Your task to perform on an android device: Go to Google maps Image 0: 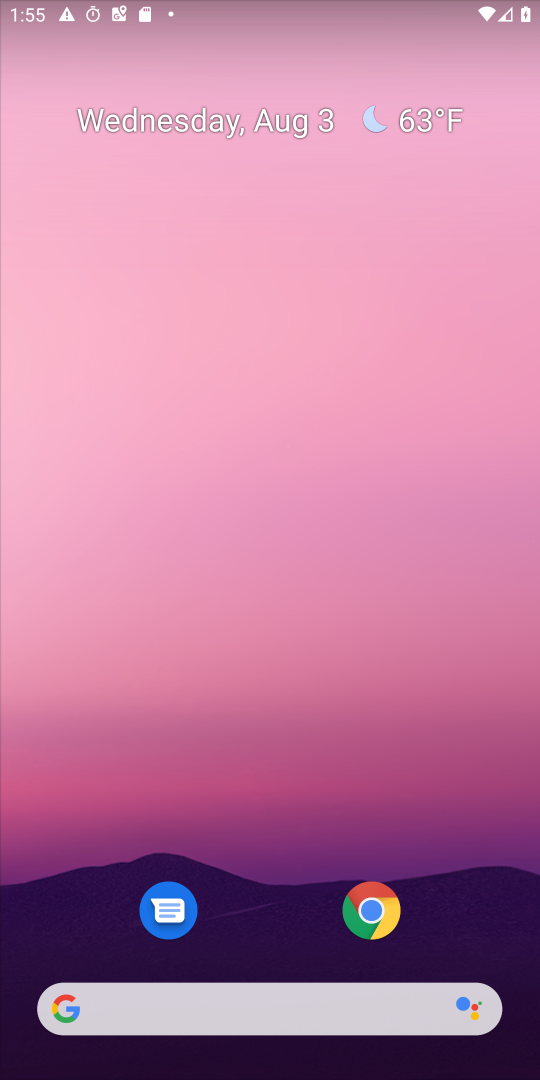
Step 0: drag from (354, 611) to (358, 16)
Your task to perform on an android device: Go to Google maps Image 1: 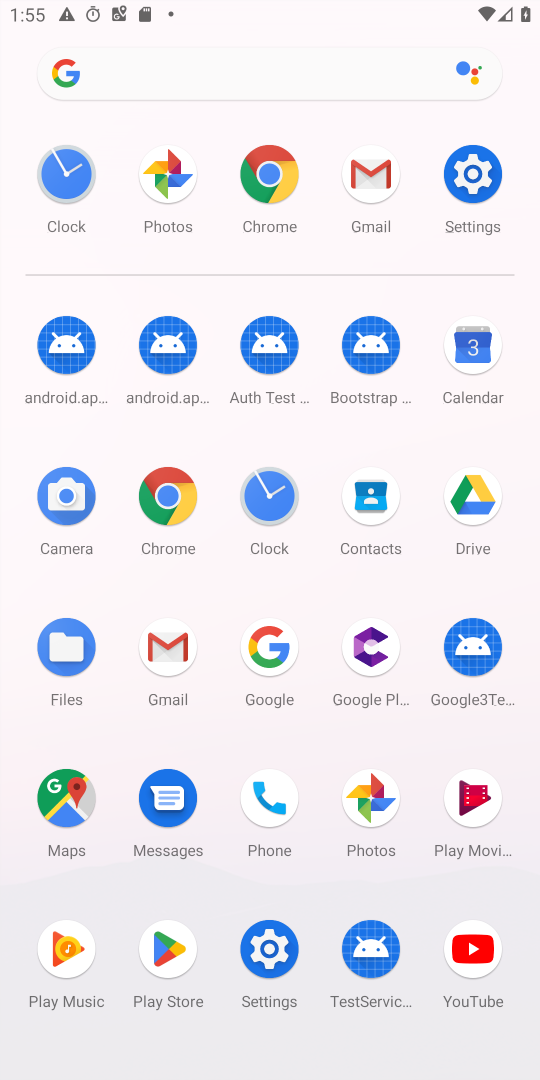
Step 1: click (55, 798)
Your task to perform on an android device: Go to Google maps Image 2: 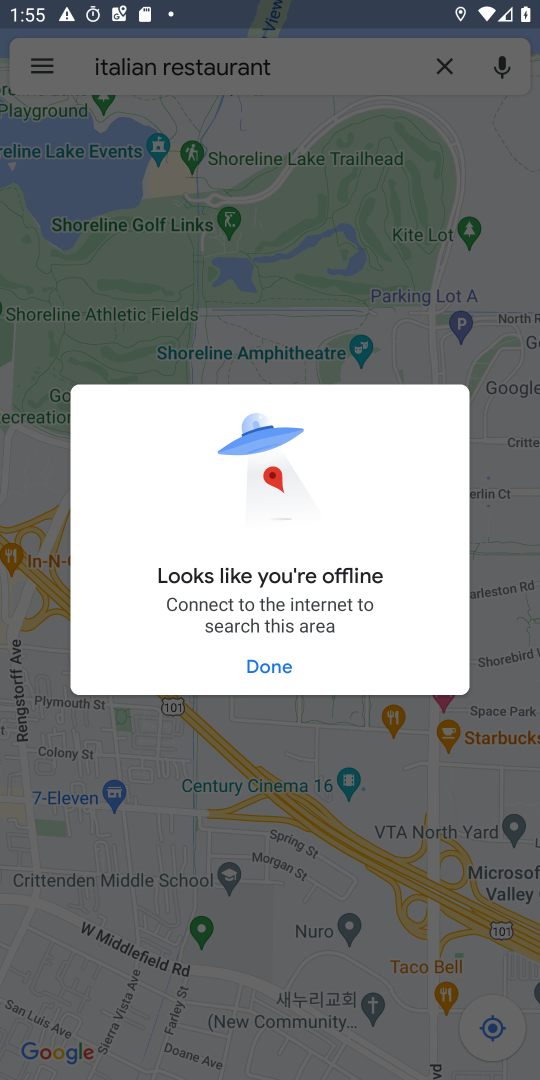
Step 2: click (473, 742)
Your task to perform on an android device: Go to Google maps Image 3: 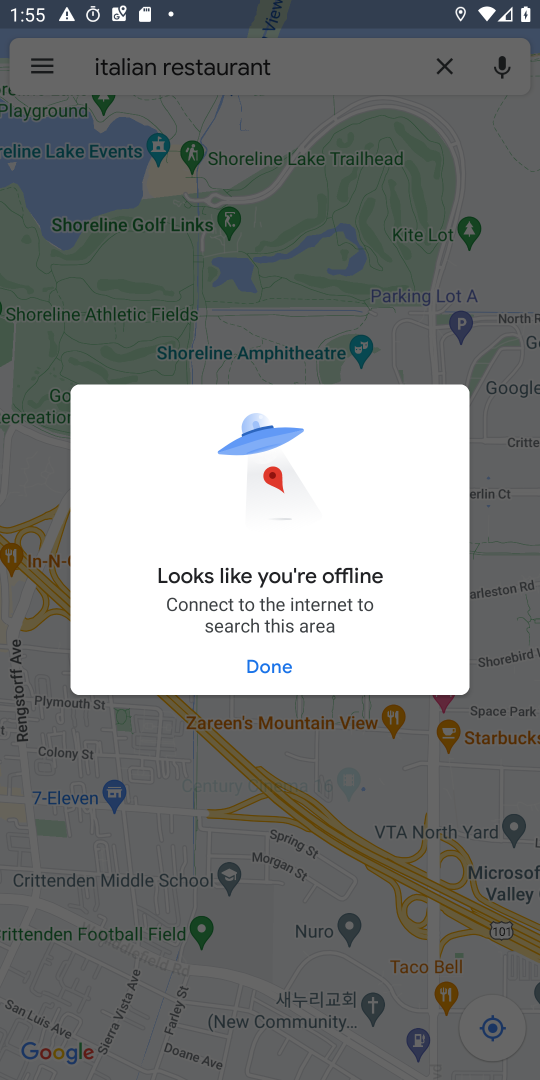
Step 3: click (490, 735)
Your task to perform on an android device: Go to Google maps Image 4: 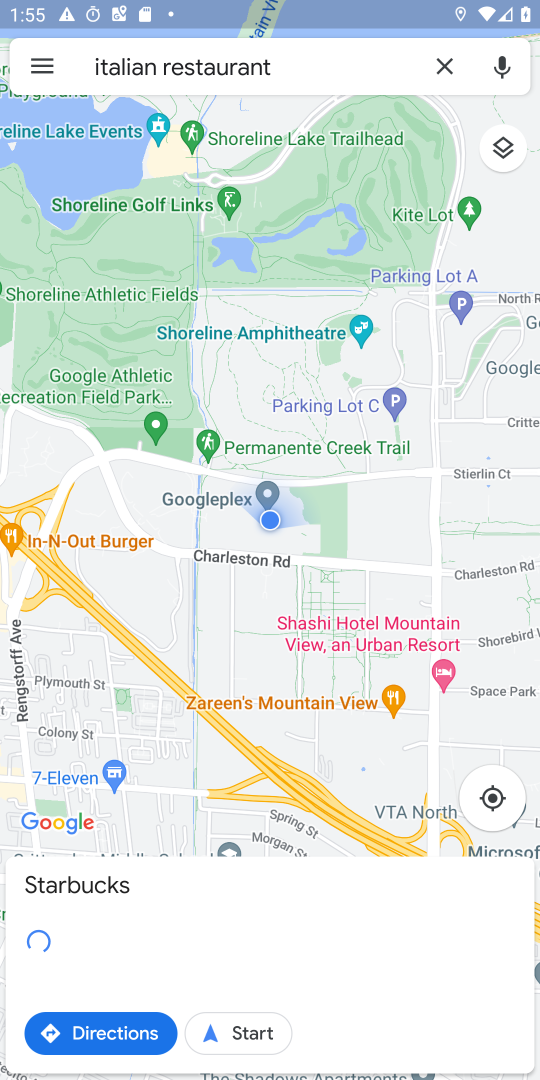
Step 4: click (448, 69)
Your task to perform on an android device: Go to Google maps Image 5: 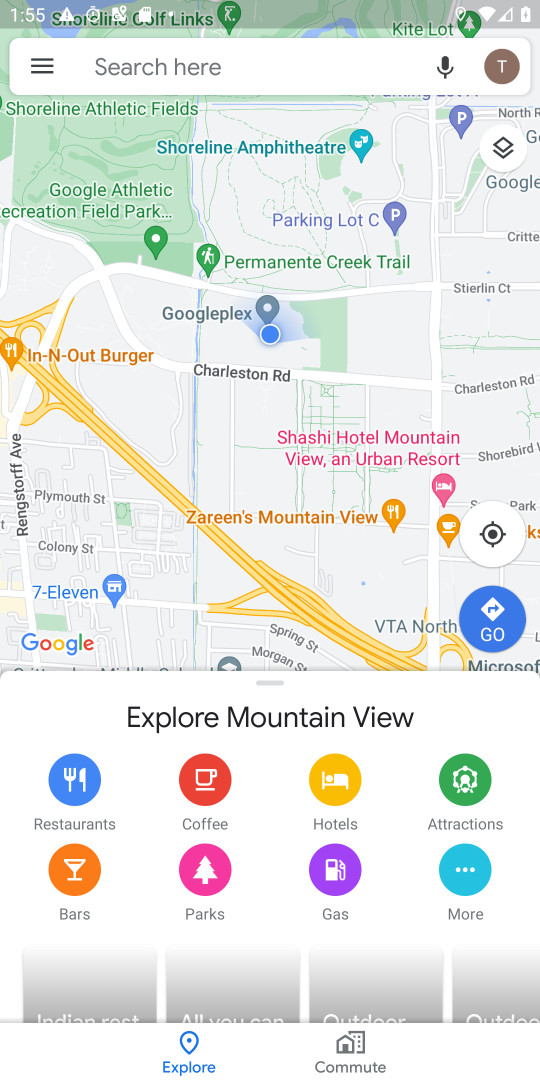
Step 5: task complete